Your task to perform on an android device: turn on data saver in the chrome app Image 0: 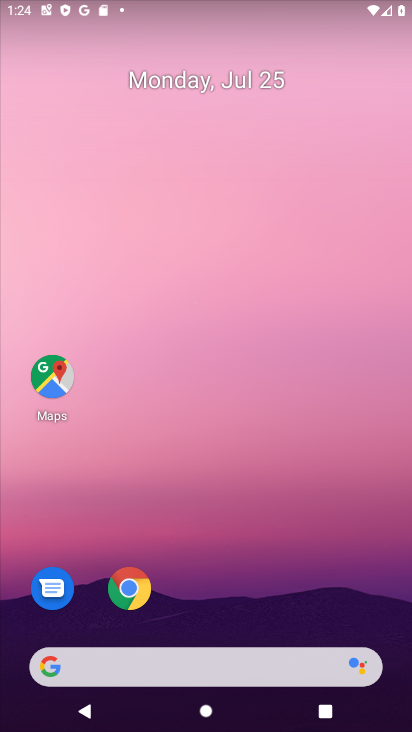
Step 0: click (126, 588)
Your task to perform on an android device: turn on data saver in the chrome app Image 1: 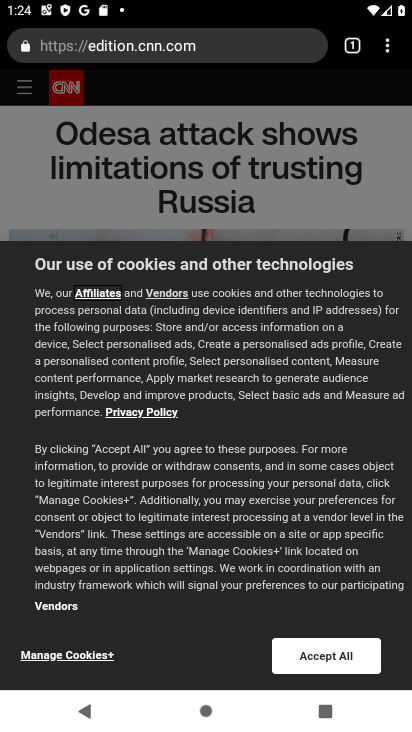
Step 1: click (389, 44)
Your task to perform on an android device: turn on data saver in the chrome app Image 2: 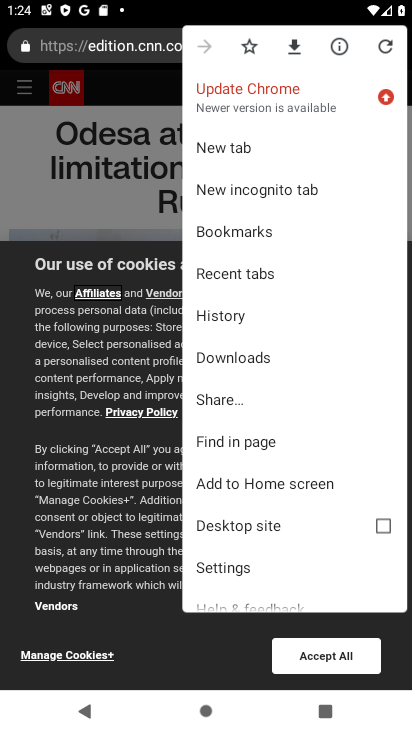
Step 2: click (226, 569)
Your task to perform on an android device: turn on data saver in the chrome app Image 3: 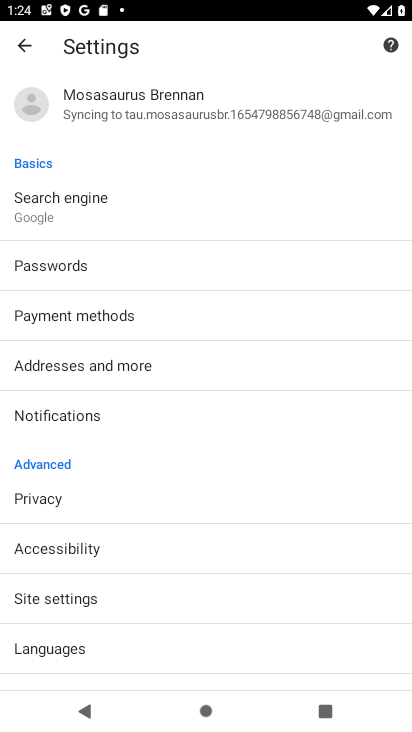
Step 3: drag from (111, 534) to (101, 395)
Your task to perform on an android device: turn on data saver in the chrome app Image 4: 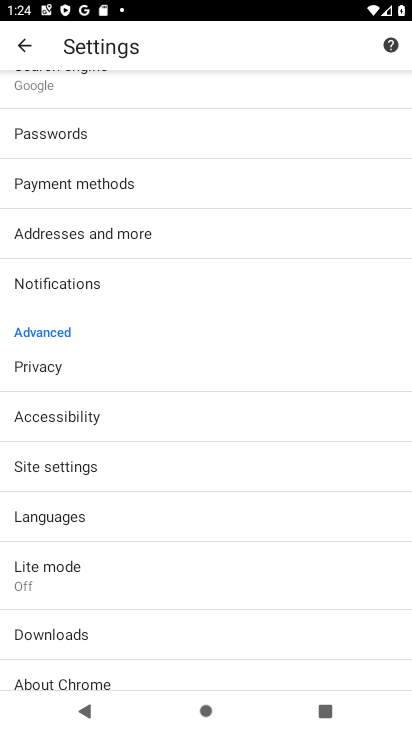
Step 4: click (40, 594)
Your task to perform on an android device: turn on data saver in the chrome app Image 5: 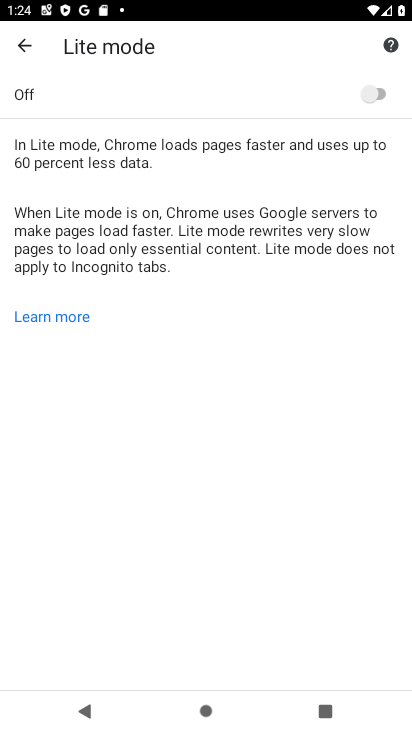
Step 5: click (381, 97)
Your task to perform on an android device: turn on data saver in the chrome app Image 6: 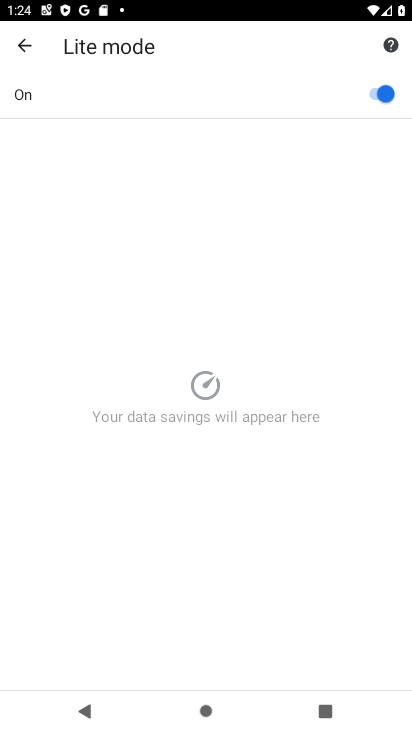
Step 6: task complete